Your task to perform on an android device: clear all cookies in the chrome app Image 0: 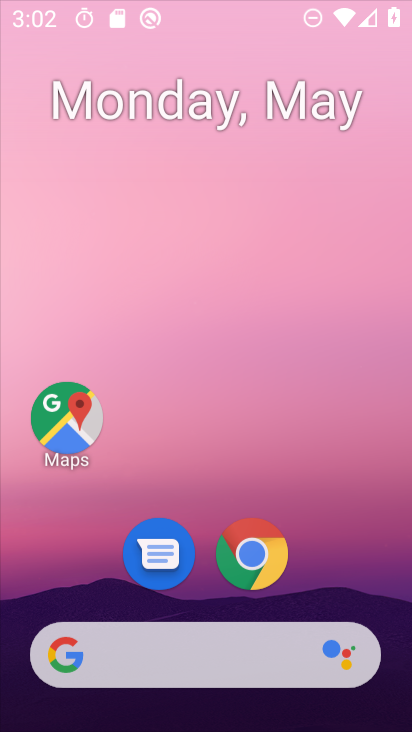
Step 0: click (289, 356)
Your task to perform on an android device: clear all cookies in the chrome app Image 1: 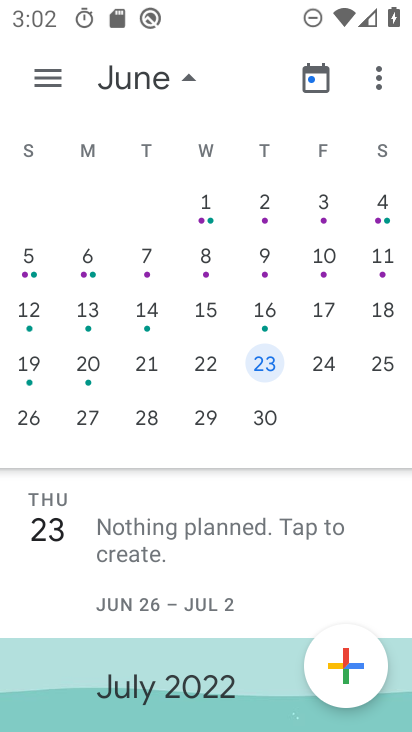
Step 1: press home button
Your task to perform on an android device: clear all cookies in the chrome app Image 2: 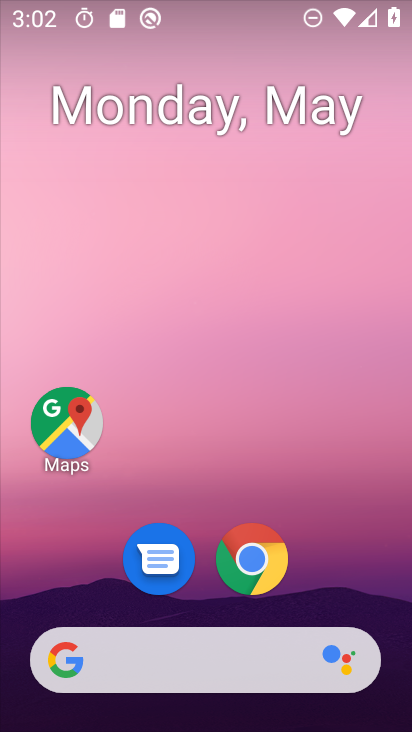
Step 2: click (261, 556)
Your task to perform on an android device: clear all cookies in the chrome app Image 3: 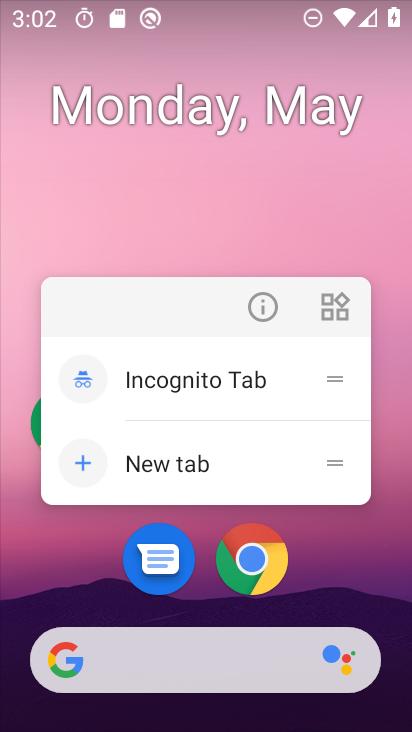
Step 3: click (246, 317)
Your task to perform on an android device: clear all cookies in the chrome app Image 4: 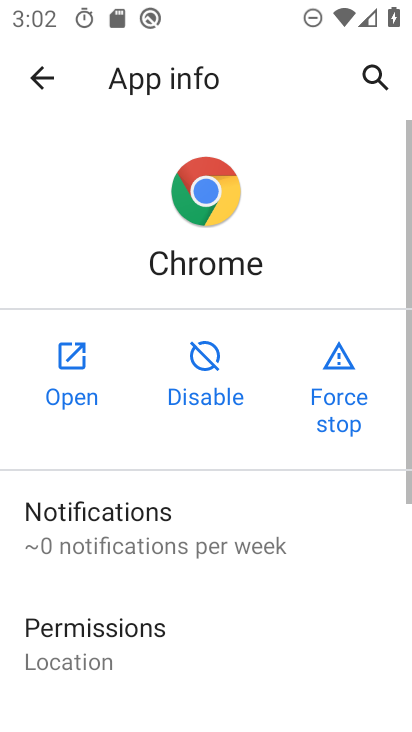
Step 4: click (70, 362)
Your task to perform on an android device: clear all cookies in the chrome app Image 5: 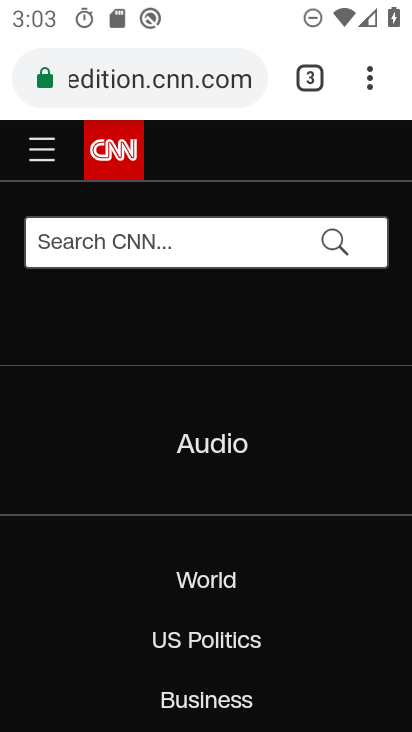
Step 5: drag from (227, 586) to (290, 337)
Your task to perform on an android device: clear all cookies in the chrome app Image 6: 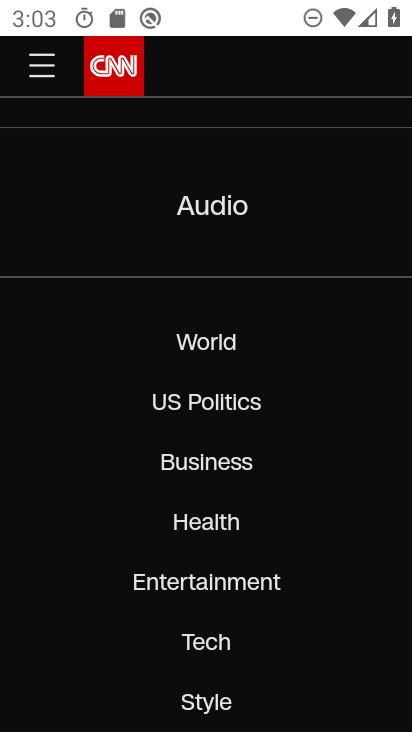
Step 6: drag from (246, 383) to (298, 727)
Your task to perform on an android device: clear all cookies in the chrome app Image 7: 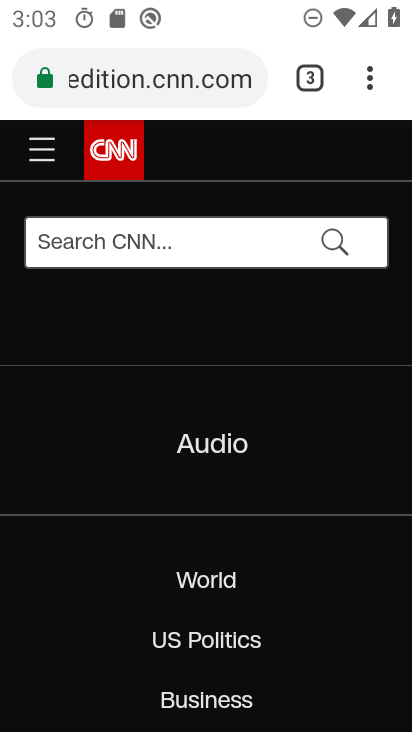
Step 7: click (374, 85)
Your task to perform on an android device: clear all cookies in the chrome app Image 8: 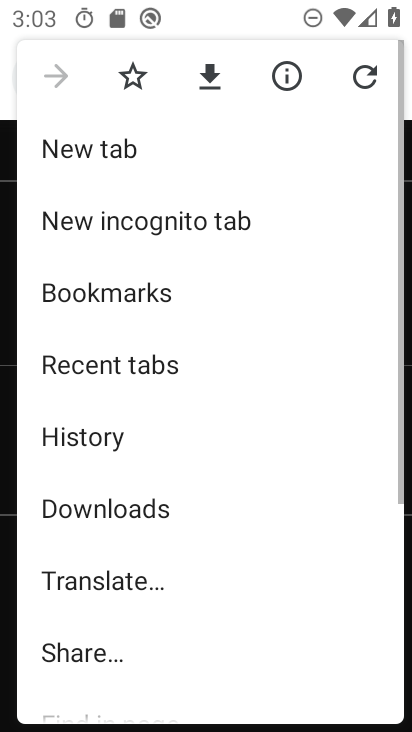
Step 8: drag from (169, 611) to (270, 135)
Your task to perform on an android device: clear all cookies in the chrome app Image 9: 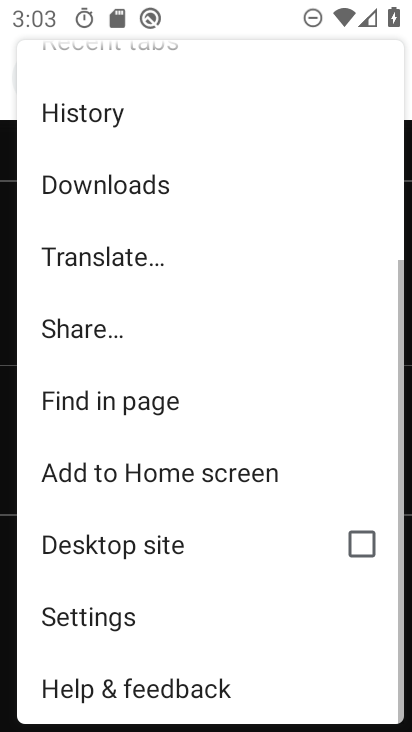
Step 9: click (122, 615)
Your task to perform on an android device: clear all cookies in the chrome app Image 10: 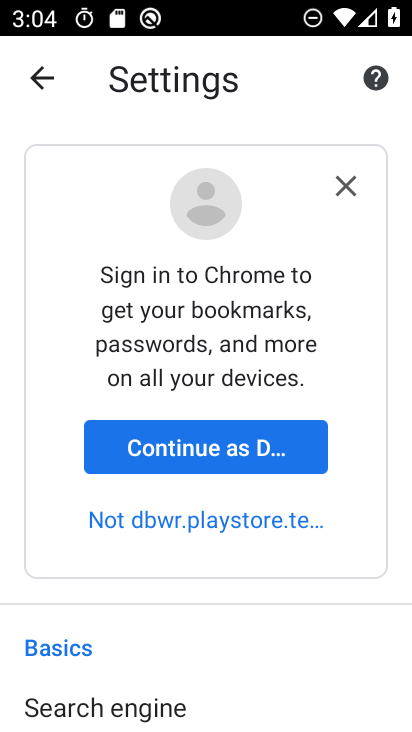
Step 10: drag from (197, 636) to (241, 253)
Your task to perform on an android device: clear all cookies in the chrome app Image 11: 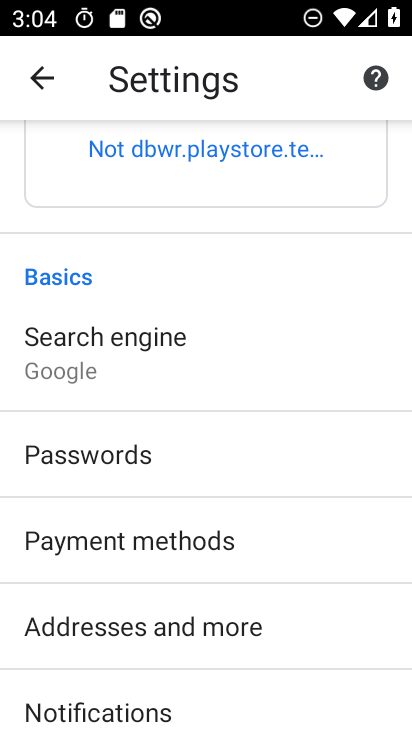
Step 11: drag from (197, 594) to (242, 314)
Your task to perform on an android device: clear all cookies in the chrome app Image 12: 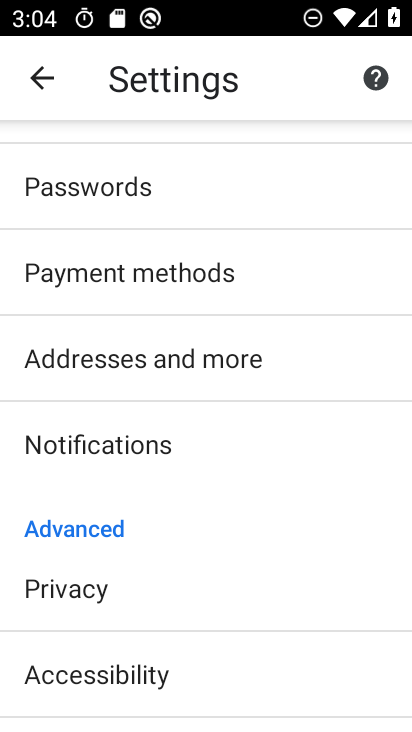
Step 12: drag from (156, 583) to (208, 333)
Your task to perform on an android device: clear all cookies in the chrome app Image 13: 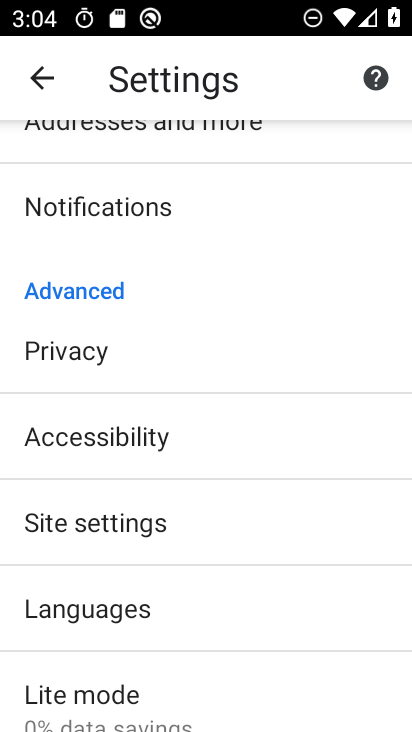
Step 13: drag from (177, 633) to (246, 342)
Your task to perform on an android device: clear all cookies in the chrome app Image 14: 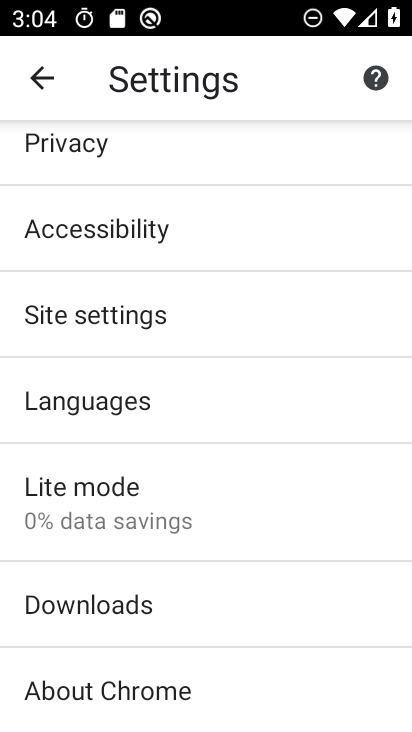
Step 14: drag from (240, 579) to (321, 282)
Your task to perform on an android device: clear all cookies in the chrome app Image 15: 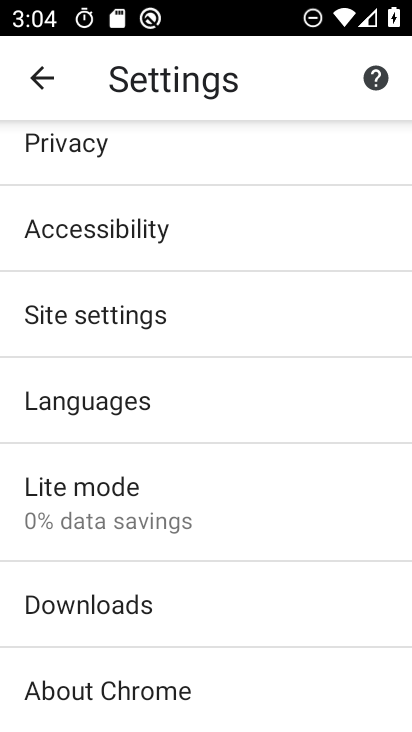
Step 15: drag from (318, 246) to (305, 731)
Your task to perform on an android device: clear all cookies in the chrome app Image 16: 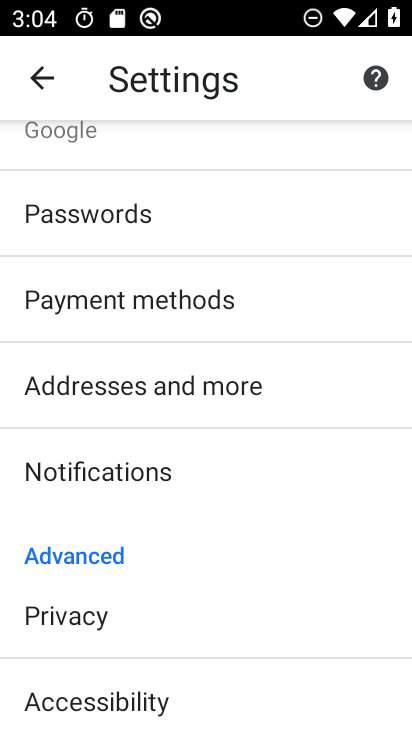
Step 16: drag from (217, 581) to (283, 360)
Your task to perform on an android device: clear all cookies in the chrome app Image 17: 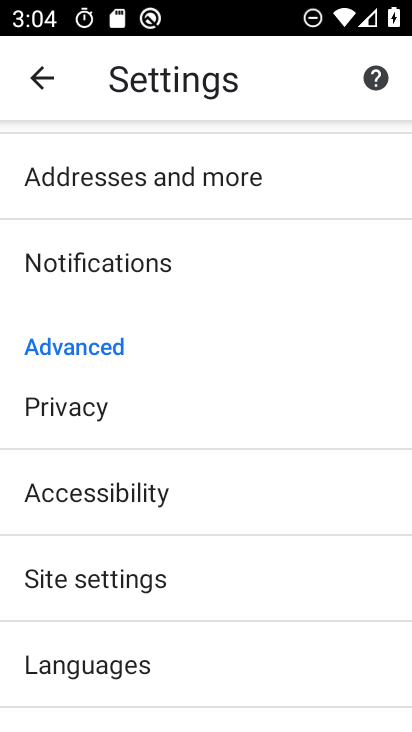
Step 17: drag from (248, 295) to (271, 704)
Your task to perform on an android device: clear all cookies in the chrome app Image 18: 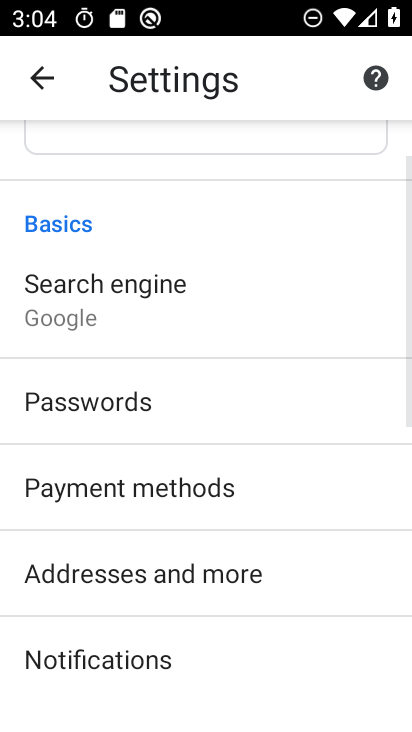
Step 18: click (31, 76)
Your task to perform on an android device: clear all cookies in the chrome app Image 19: 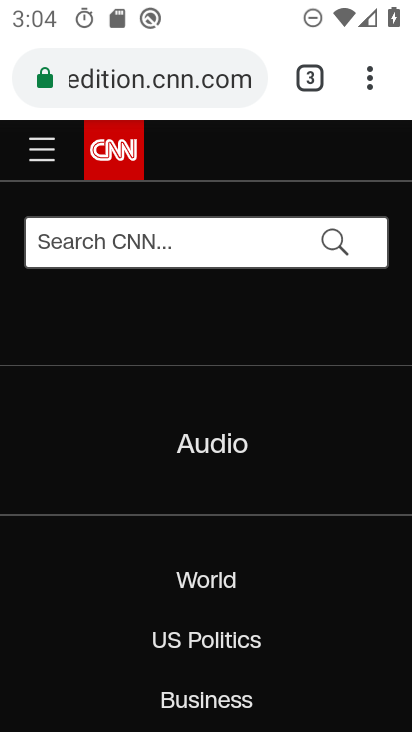
Step 19: click (372, 75)
Your task to perform on an android device: clear all cookies in the chrome app Image 20: 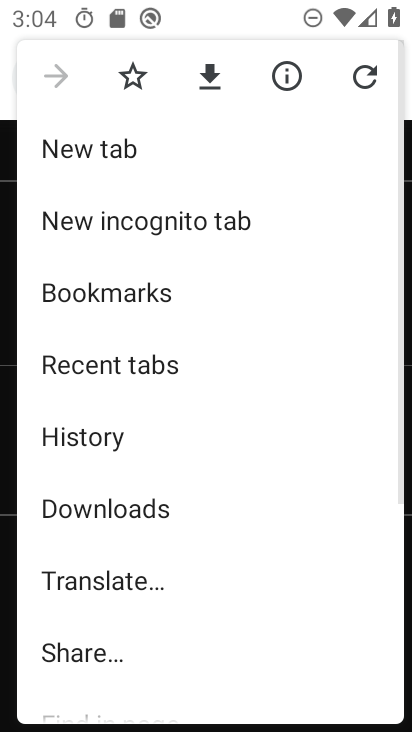
Step 20: click (109, 455)
Your task to perform on an android device: clear all cookies in the chrome app Image 21: 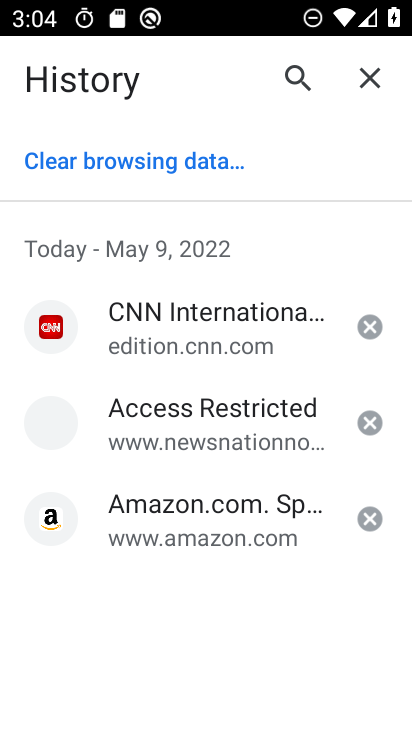
Step 21: click (143, 172)
Your task to perform on an android device: clear all cookies in the chrome app Image 22: 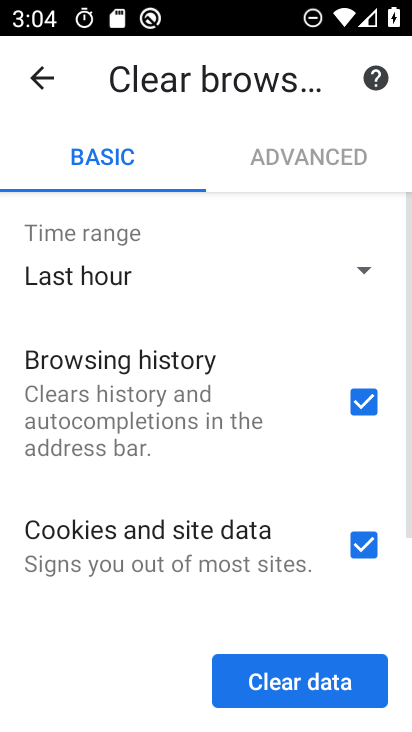
Step 22: click (361, 399)
Your task to perform on an android device: clear all cookies in the chrome app Image 23: 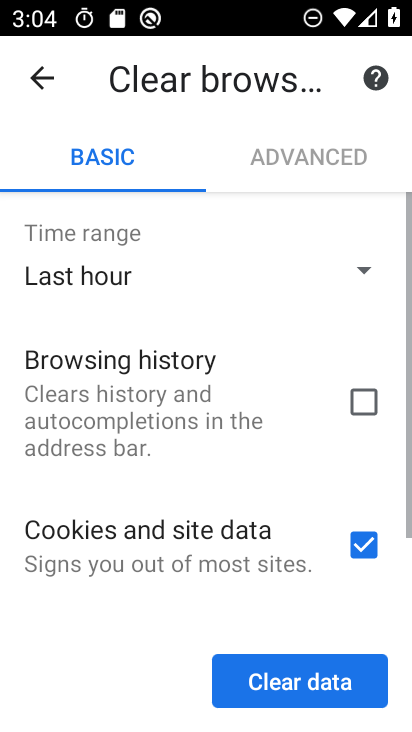
Step 23: drag from (209, 509) to (281, 122)
Your task to perform on an android device: clear all cookies in the chrome app Image 24: 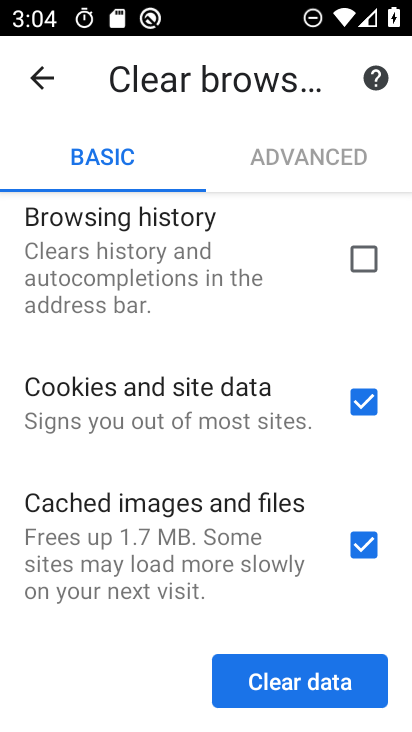
Step 24: click (263, 668)
Your task to perform on an android device: clear all cookies in the chrome app Image 25: 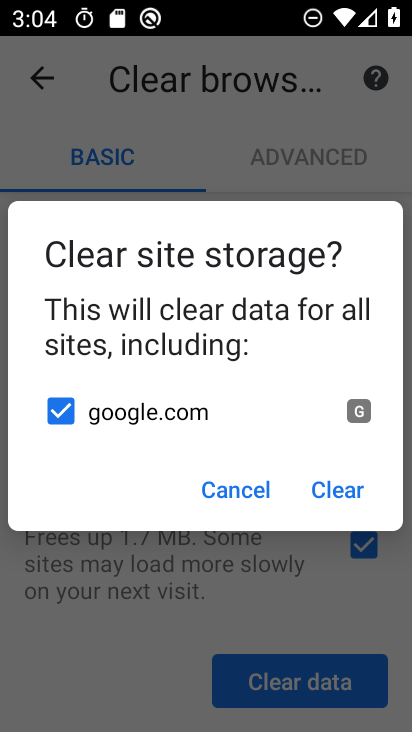
Step 25: click (329, 494)
Your task to perform on an android device: clear all cookies in the chrome app Image 26: 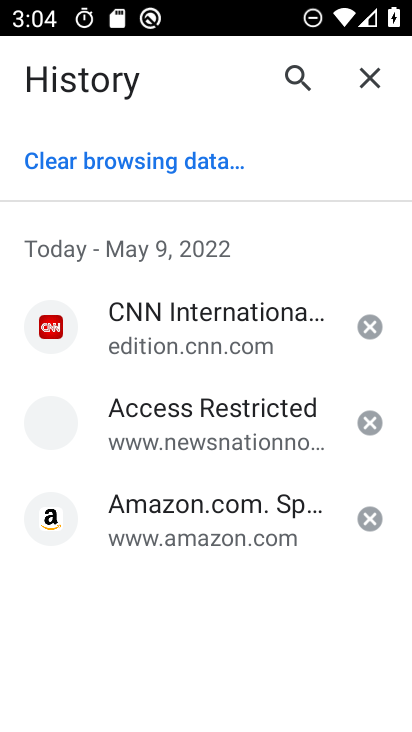
Step 26: task complete